Your task to perform on an android device: open sync settings in chrome Image 0: 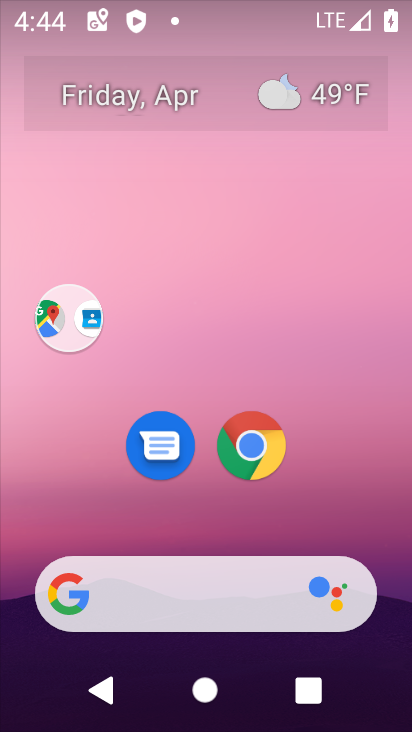
Step 0: drag from (312, 482) to (314, 2)
Your task to perform on an android device: open sync settings in chrome Image 1: 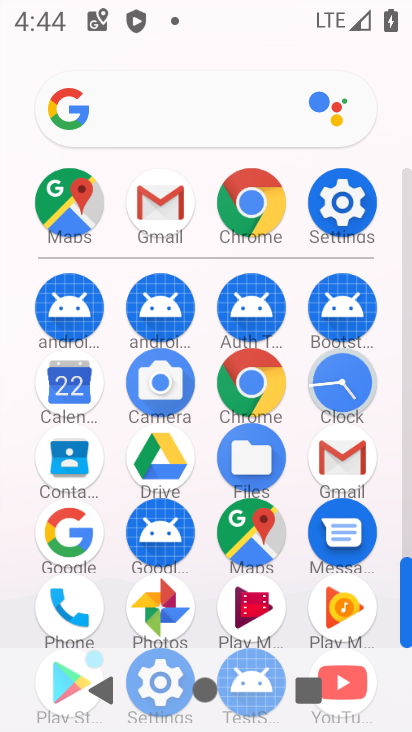
Step 1: click (253, 391)
Your task to perform on an android device: open sync settings in chrome Image 2: 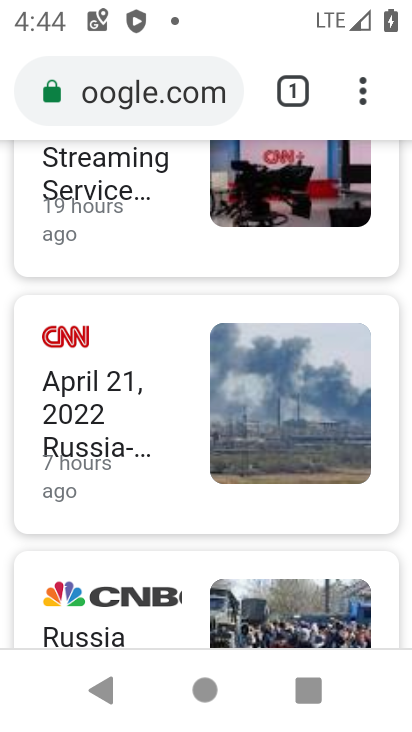
Step 2: drag from (361, 86) to (190, 459)
Your task to perform on an android device: open sync settings in chrome Image 3: 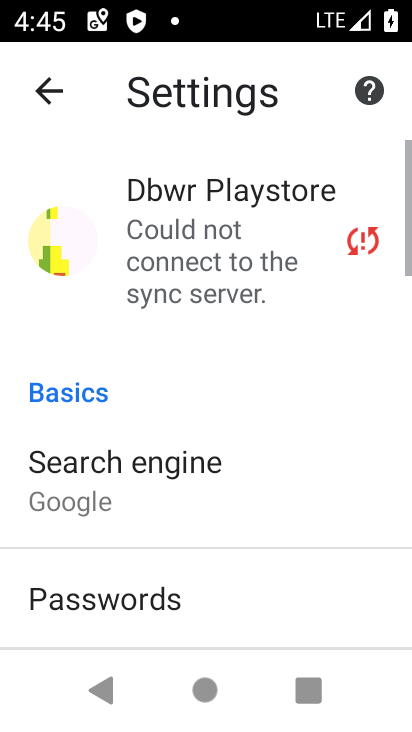
Step 3: click (185, 220)
Your task to perform on an android device: open sync settings in chrome Image 4: 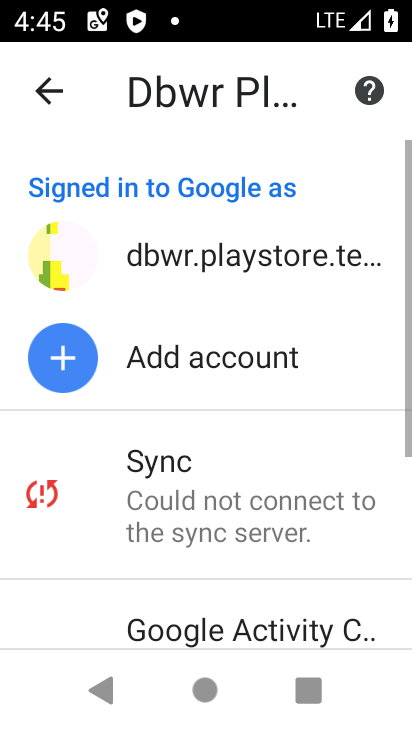
Step 4: click (230, 488)
Your task to perform on an android device: open sync settings in chrome Image 5: 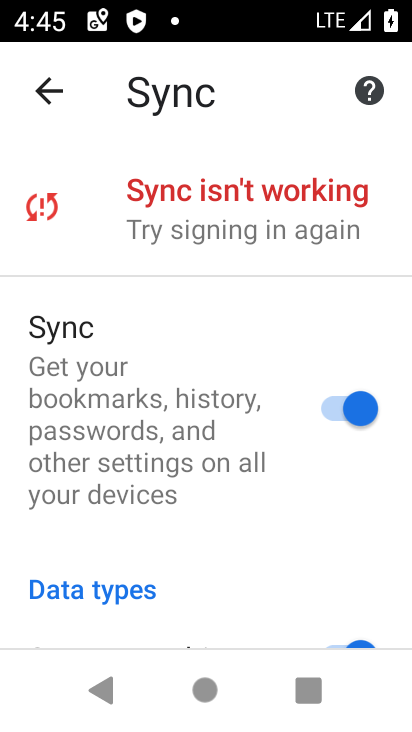
Step 5: task complete